Your task to perform on an android device: turn on data saver in the chrome app Image 0: 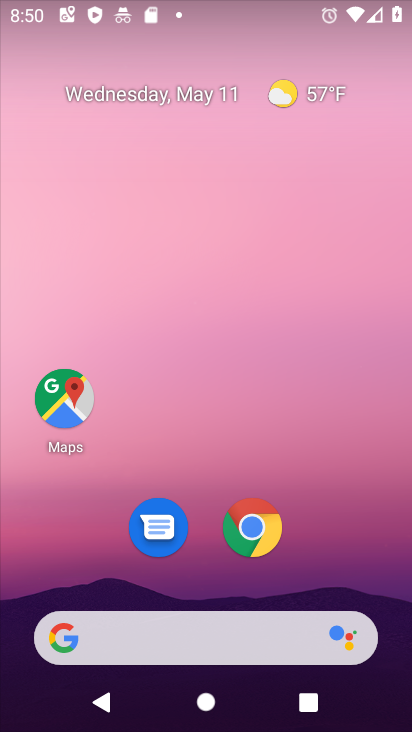
Step 0: click (262, 538)
Your task to perform on an android device: turn on data saver in the chrome app Image 1: 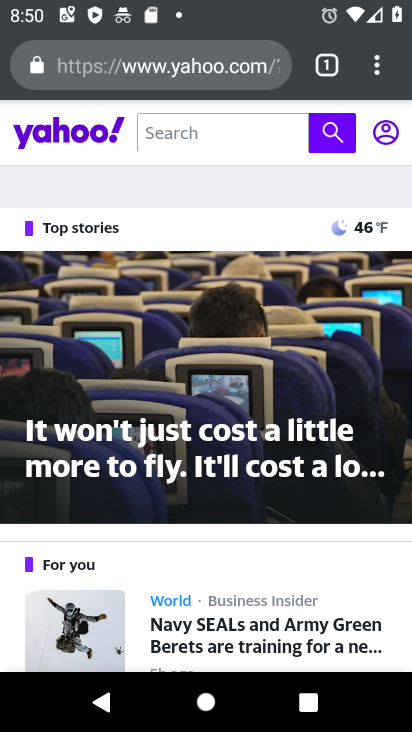
Step 1: click (382, 69)
Your task to perform on an android device: turn on data saver in the chrome app Image 2: 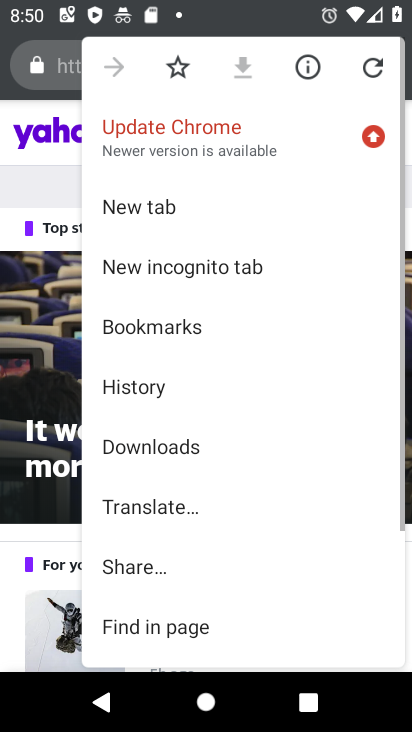
Step 2: drag from (270, 530) to (270, 59)
Your task to perform on an android device: turn on data saver in the chrome app Image 3: 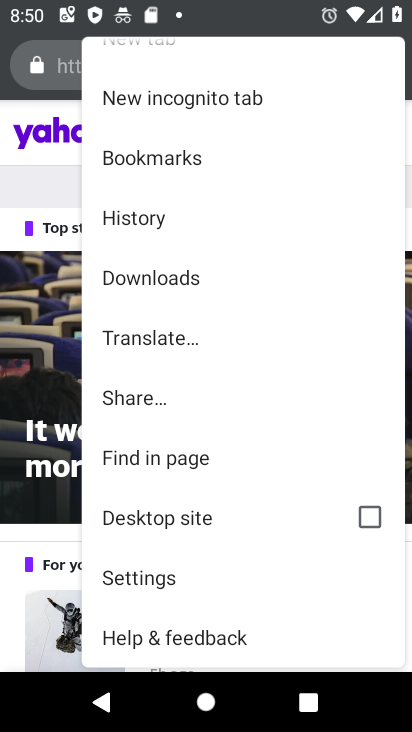
Step 3: click (156, 580)
Your task to perform on an android device: turn on data saver in the chrome app Image 4: 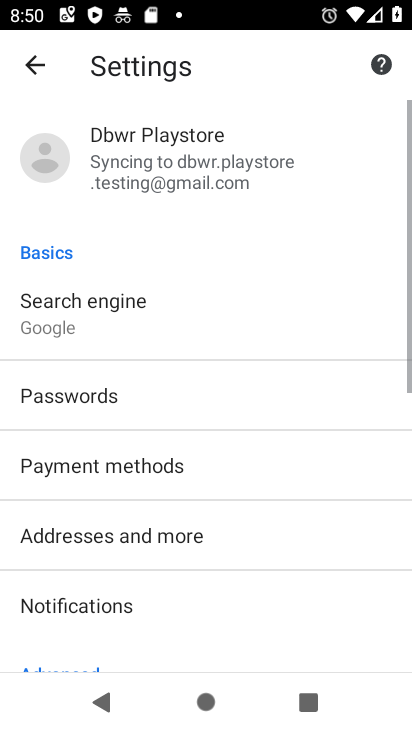
Step 4: drag from (222, 623) to (241, 107)
Your task to perform on an android device: turn on data saver in the chrome app Image 5: 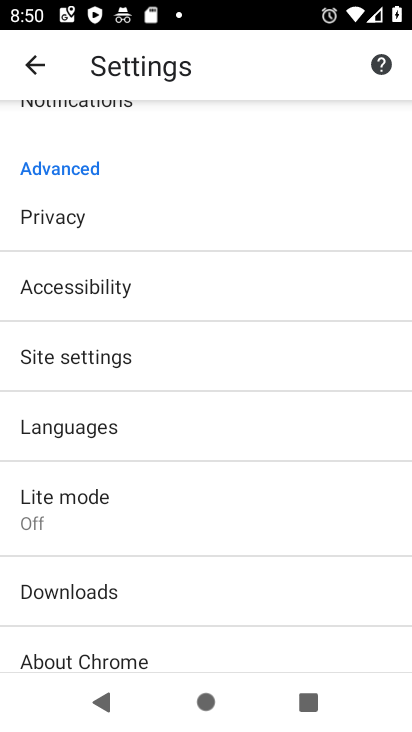
Step 5: click (85, 527)
Your task to perform on an android device: turn on data saver in the chrome app Image 6: 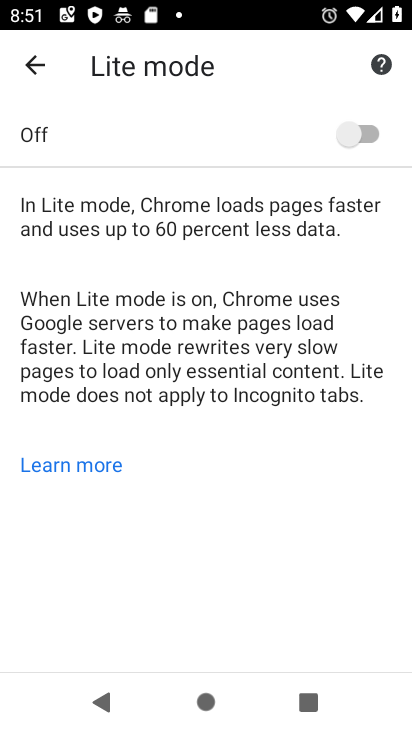
Step 6: click (357, 149)
Your task to perform on an android device: turn on data saver in the chrome app Image 7: 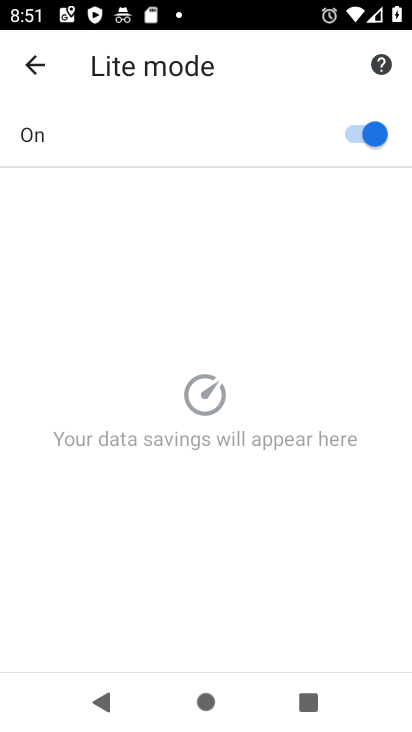
Step 7: task complete